Your task to perform on an android device: Go to network settings Image 0: 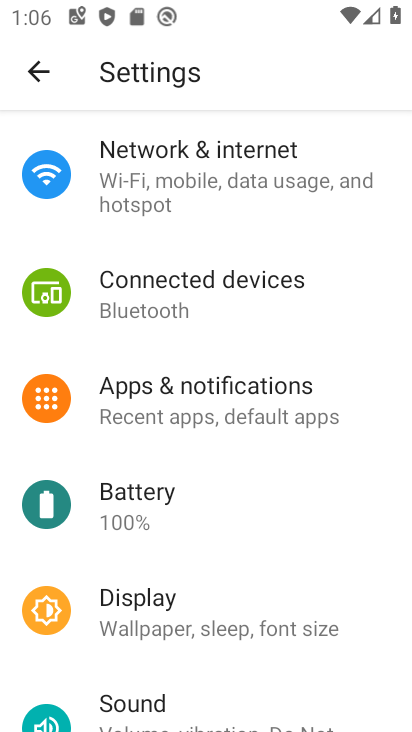
Step 0: click (225, 181)
Your task to perform on an android device: Go to network settings Image 1: 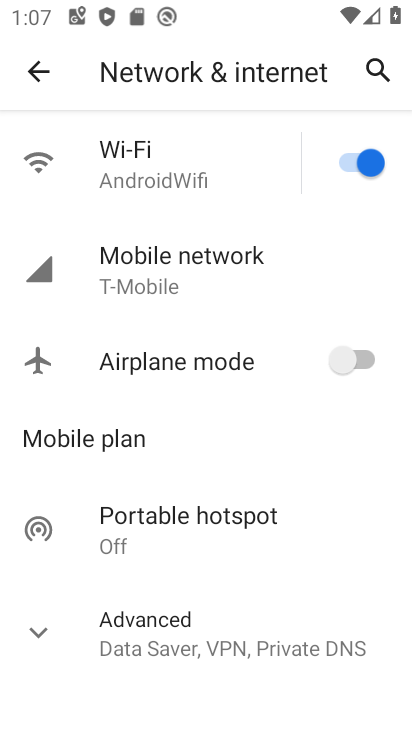
Step 1: task complete